Your task to perform on an android device: open a new tab in the chrome app Image 0: 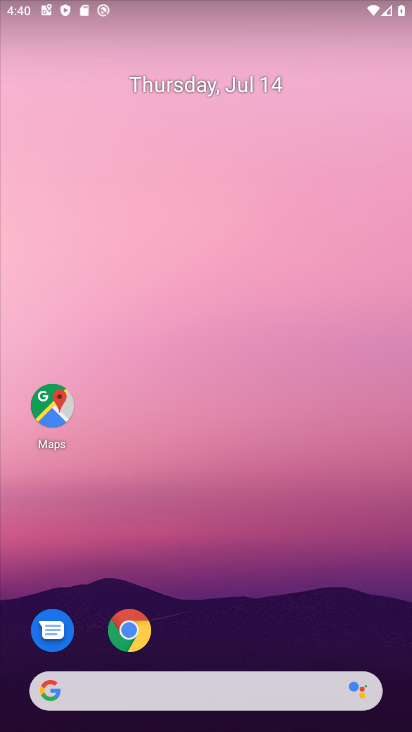
Step 0: drag from (276, 672) to (308, 235)
Your task to perform on an android device: open a new tab in the chrome app Image 1: 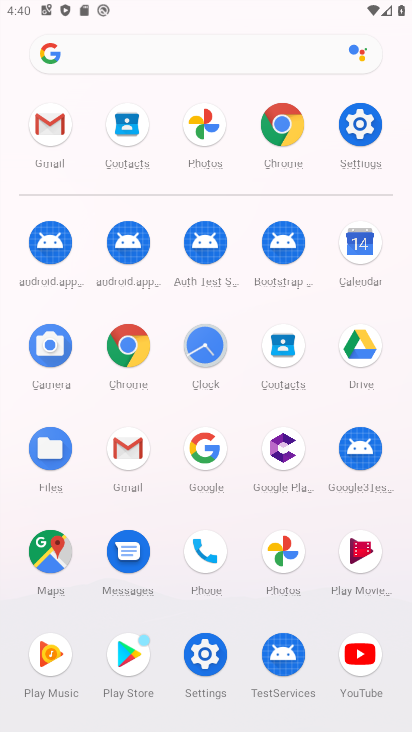
Step 1: click (129, 360)
Your task to perform on an android device: open a new tab in the chrome app Image 2: 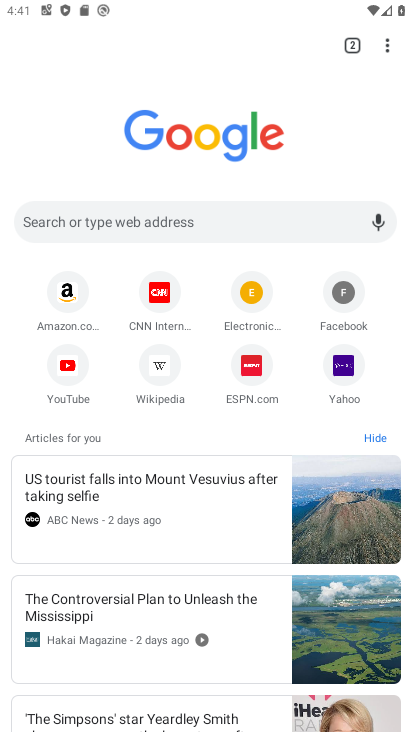
Step 2: click (380, 41)
Your task to perform on an android device: open a new tab in the chrome app Image 3: 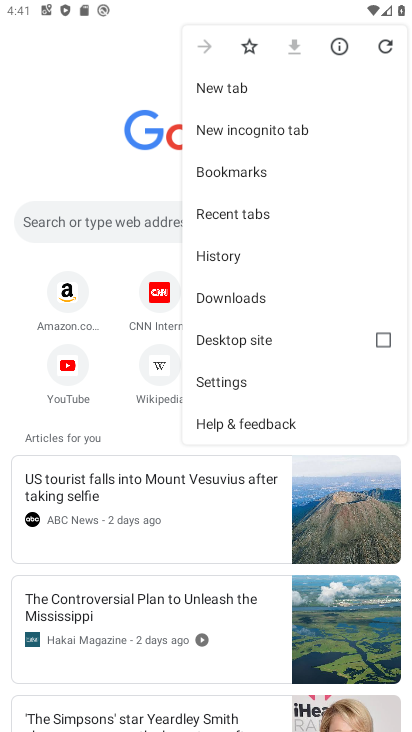
Step 3: click (262, 93)
Your task to perform on an android device: open a new tab in the chrome app Image 4: 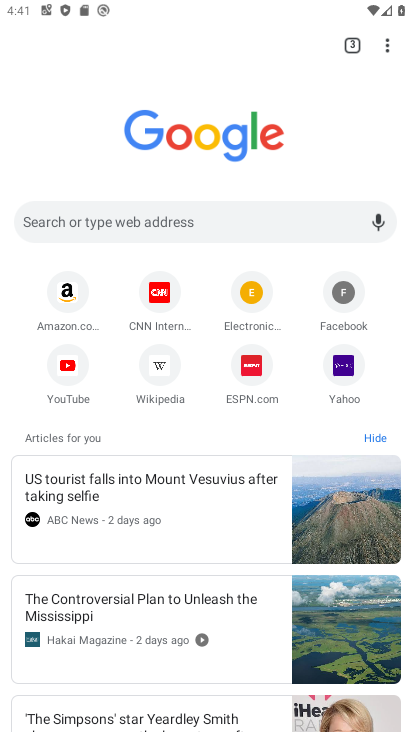
Step 4: task complete